Your task to perform on an android device: find snoozed emails in the gmail app Image 0: 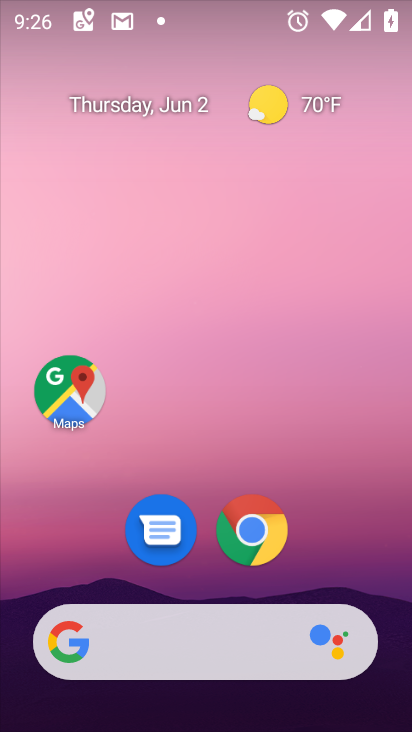
Step 0: drag from (182, 611) to (169, 293)
Your task to perform on an android device: find snoozed emails in the gmail app Image 1: 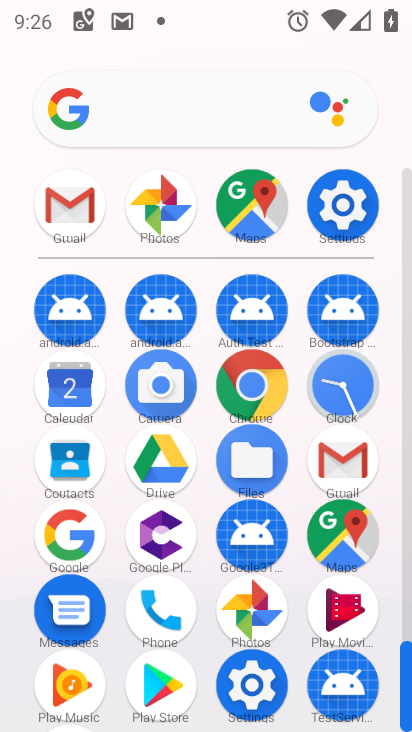
Step 1: click (78, 222)
Your task to perform on an android device: find snoozed emails in the gmail app Image 2: 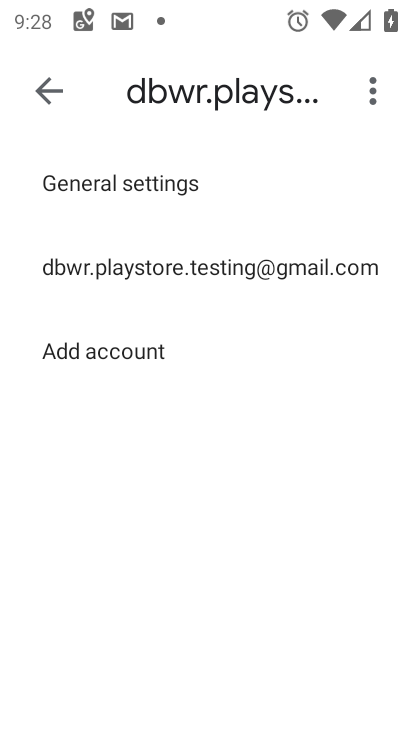
Step 2: press home button
Your task to perform on an android device: find snoozed emails in the gmail app Image 3: 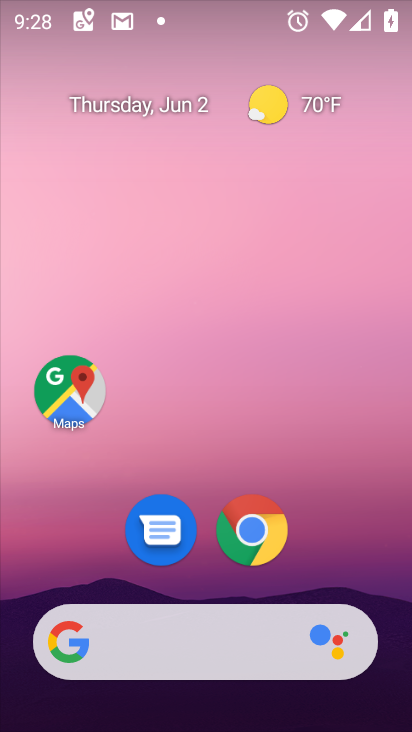
Step 3: drag from (190, 557) to (163, 306)
Your task to perform on an android device: find snoozed emails in the gmail app Image 4: 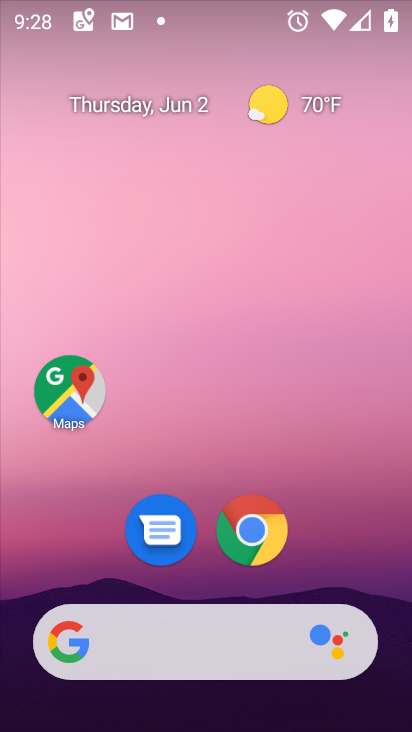
Step 4: drag from (144, 544) to (118, 270)
Your task to perform on an android device: find snoozed emails in the gmail app Image 5: 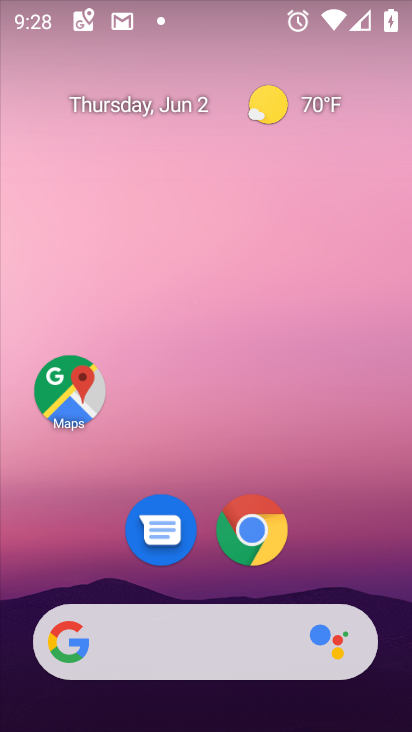
Step 5: drag from (199, 574) to (213, 228)
Your task to perform on an android device: find snoozed emails in the gmail app Image 6: 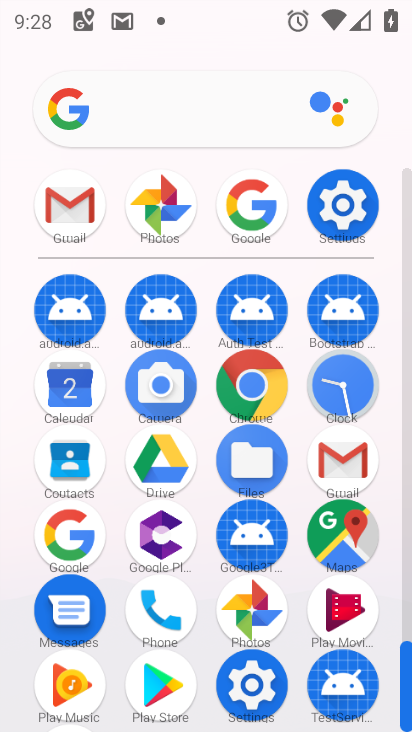
Step 6: click (72, 218)
Your task to perform on an android device: find snoozed emails in the gmail app Image 7: 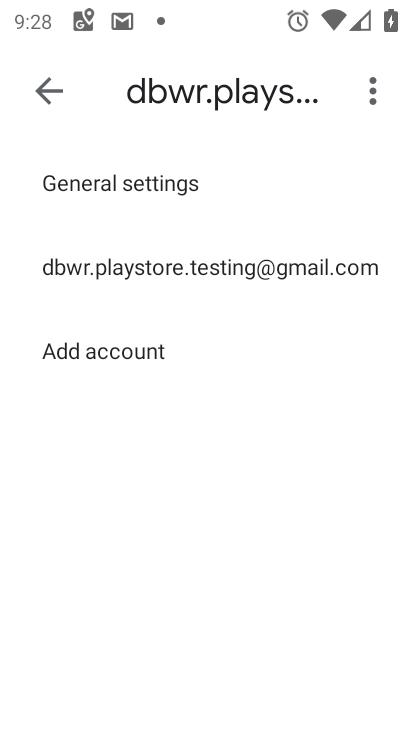
Step 7: click (55, 93)
Your task to perform on an android device: find snoozed emails in the gmail app Image 8: 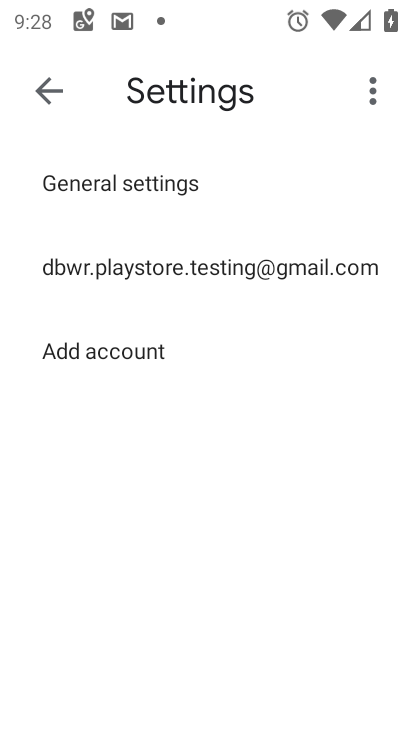
Step 8: click (34, 87)
Your task to perform on an android device: find snoozed emails in the gmail app Image 9: 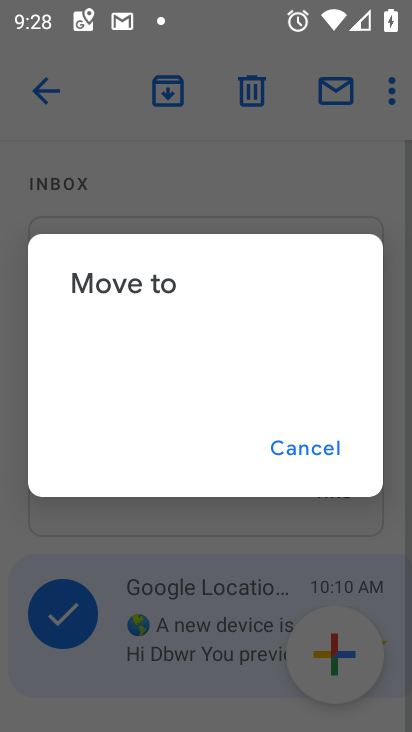
Step 9: click (286, 443)
Your task to perform on an android device: find snoozed emails in the gmail app Image 10: 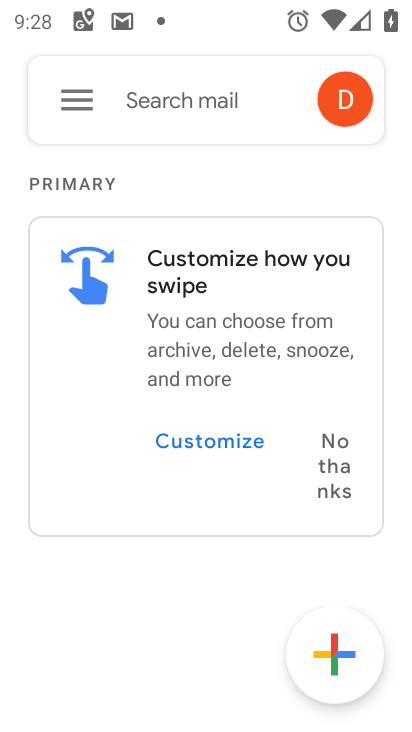
Step 10: click (69, 96)
Your task to perform on an android device: find snoozed emails in the gmail app Image 11: 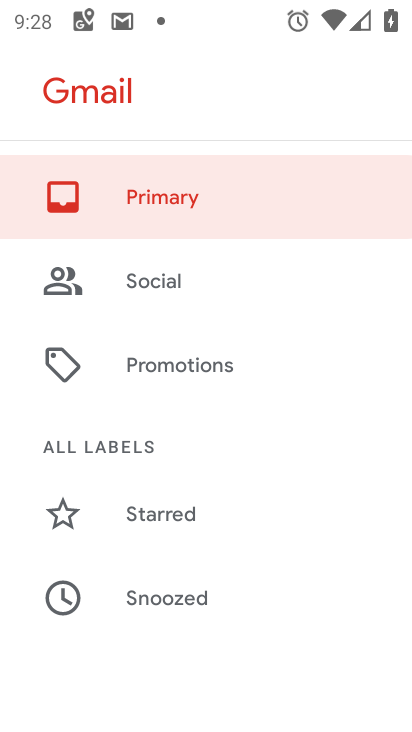
Step 11: click (152, 594)
Your task to perform on an android device: find snoozed emails in the gmail app Image 12: 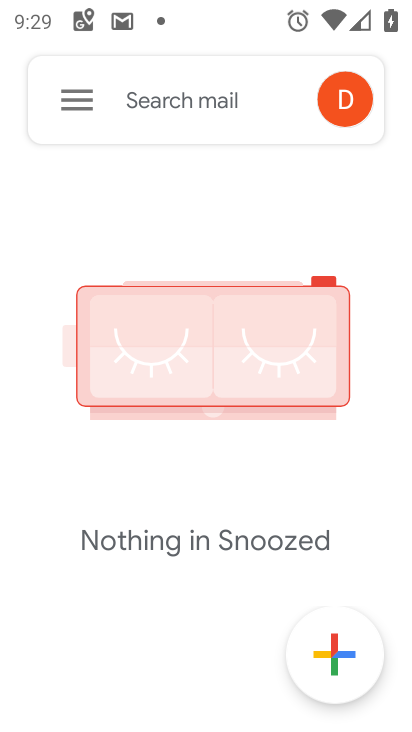
Step 12: task complete